Your task to perform on an android device: Where can I buy a nice beach umbrella? Image 0: 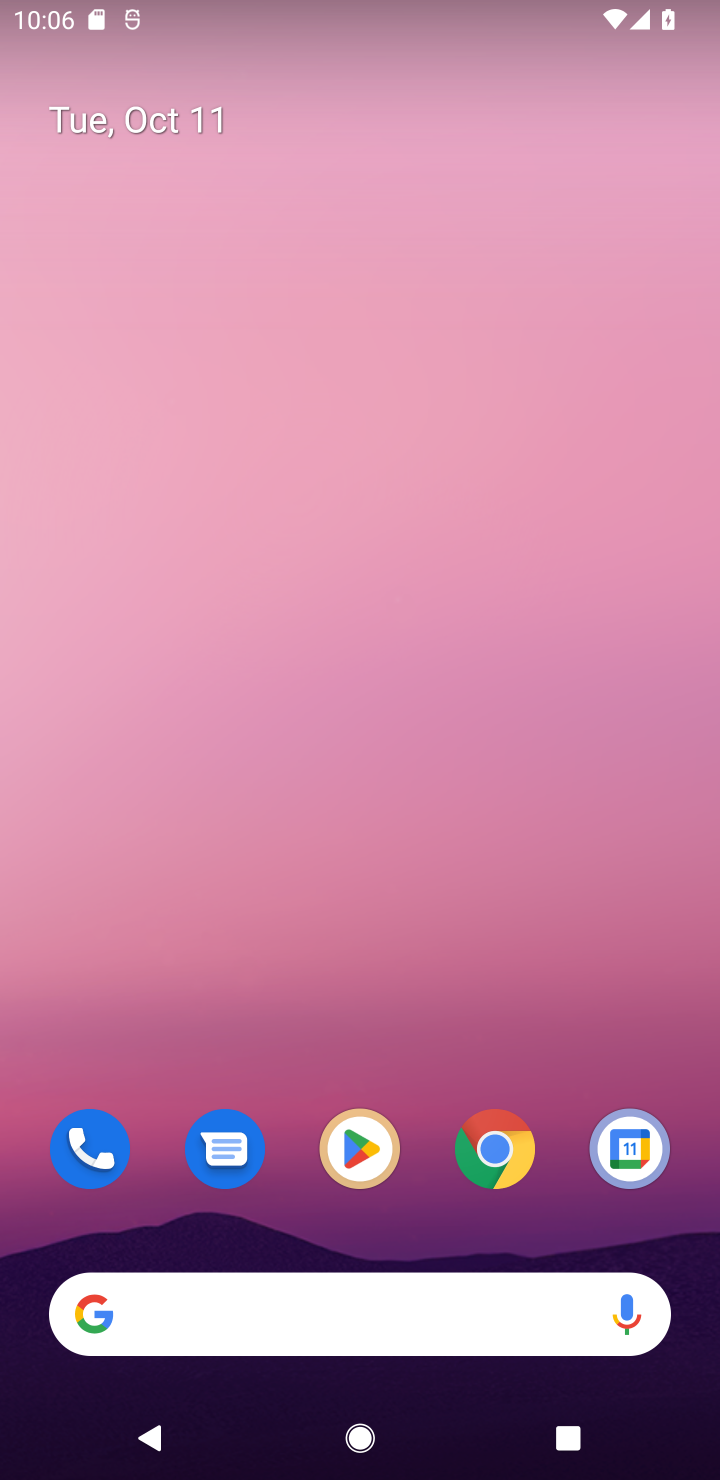
Step 0: click (301, 1316)
Your task to perform on an android device: Where can I buy a nice beach umbrella? Image 1: 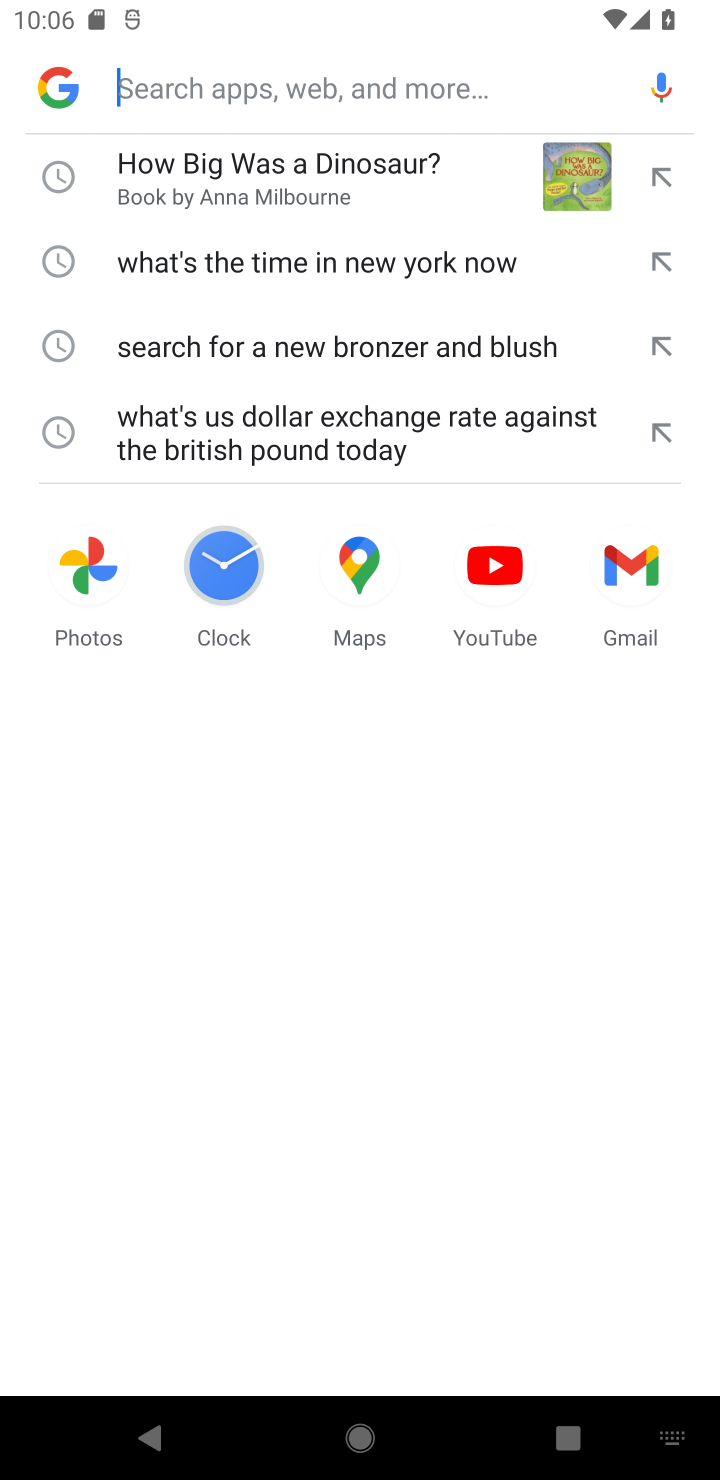
Step 1: type "Where can I buy a nice beach umbrella?"
Your task to perform on an android device: Where can I buy a nice beach umbrella? Image 2: 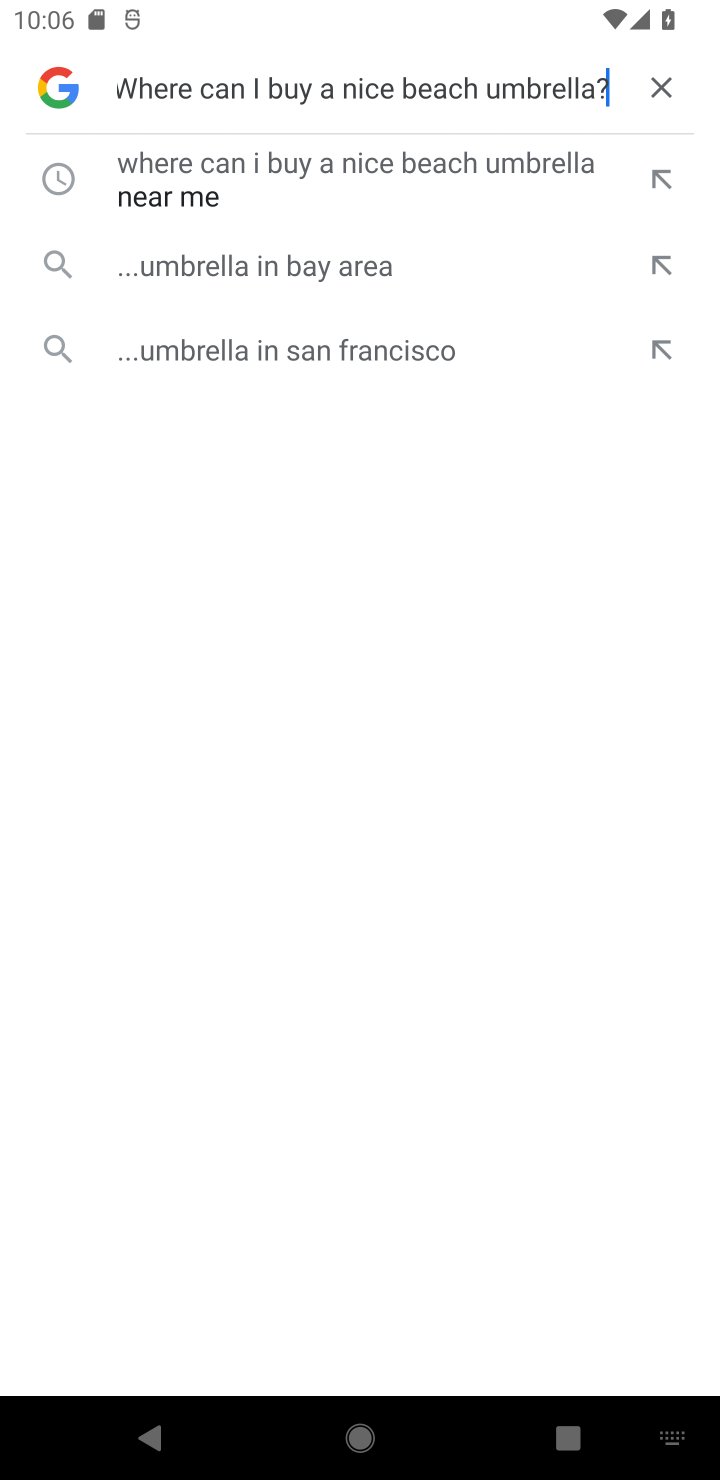
Step 2: click (476, 173)
Your task to perform on an android device: Where can I buy a nice beach umbrella? Image 3: 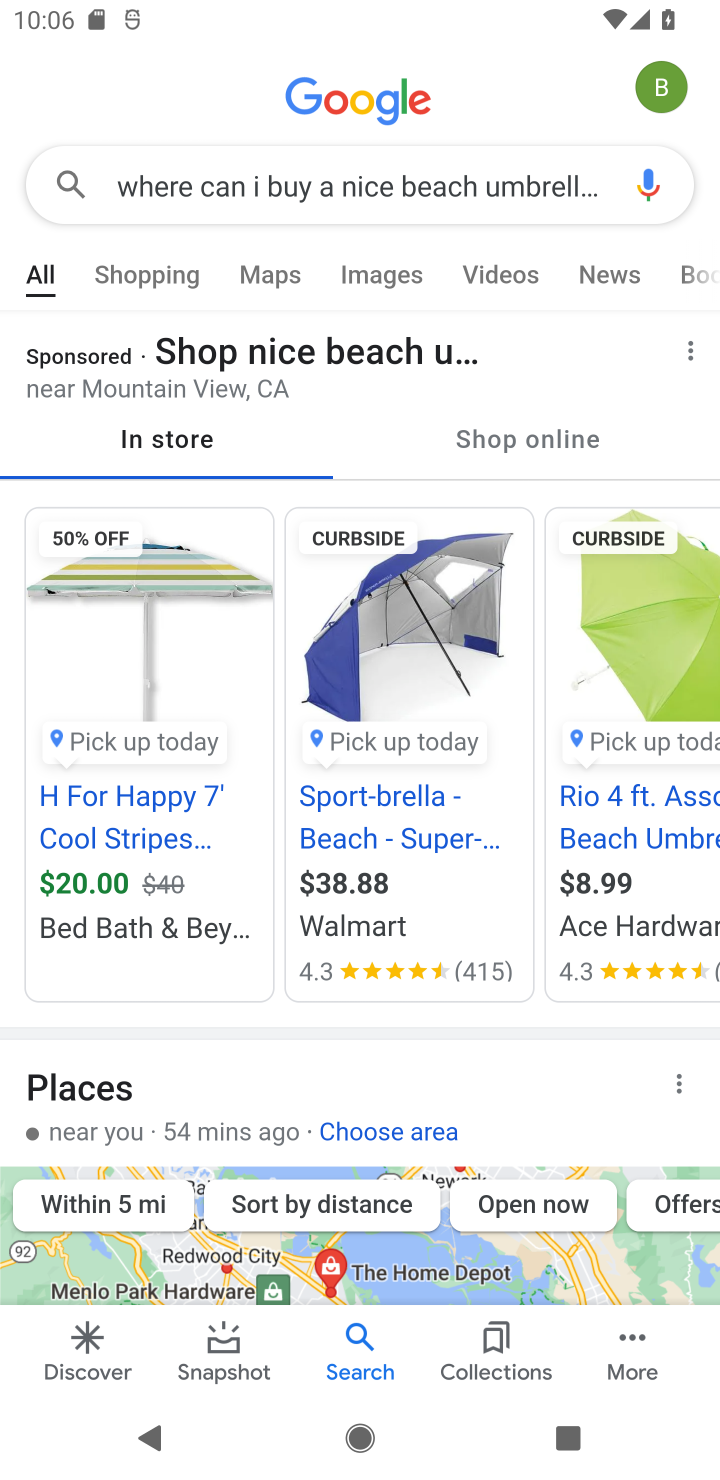
Step 3: task complete